Your task to perform on an android device: Open CNN.com Image 0: 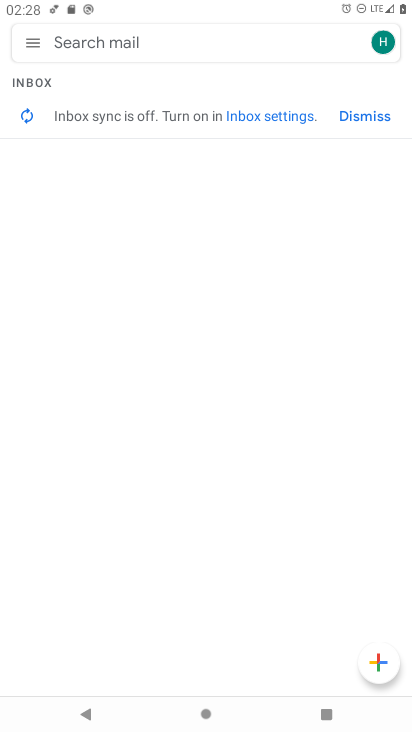
Step 0: press home button
Your task to perform on an android device: Open CNN.com Image 1: 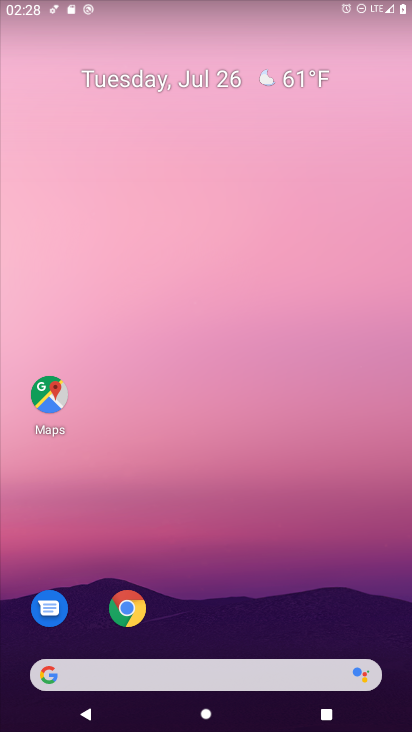
Step 1: click (129, 595)
Your task to perform on an android device: Open CNN.com Image 2: 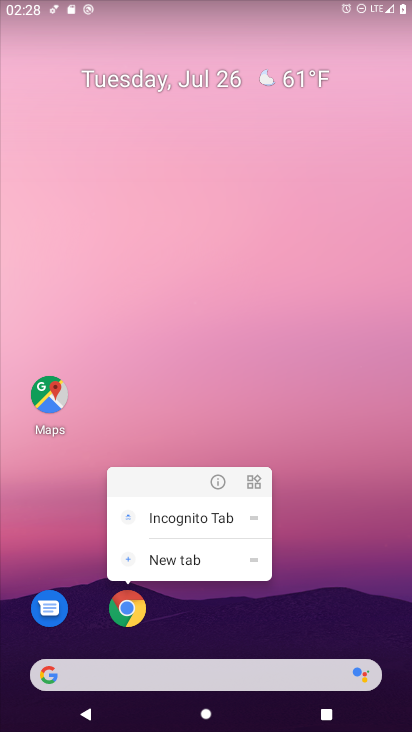
Step 2: click (132, 597)
Your task to perform on an android device: Open CNN.com Image 3: 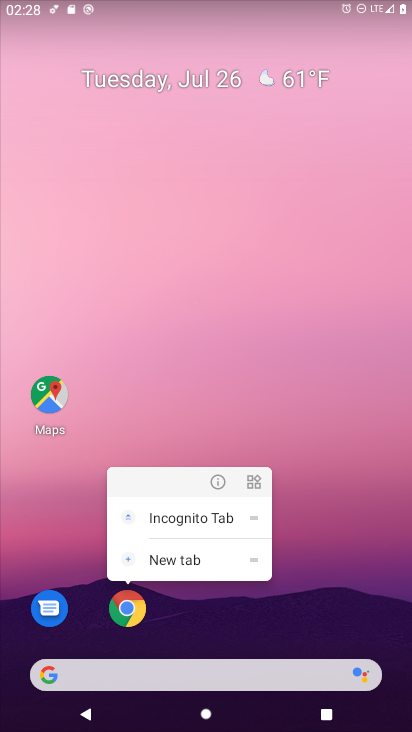
Step 3: click (132, 597)
Your task to perform on an android device: Open CNN.com Image 4: 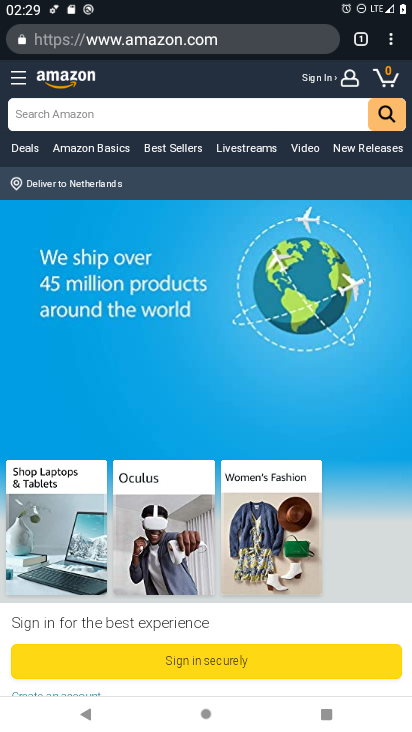
Step 4: click (363, 44)
Your task to perform on an android device: Open CNN.com Image 5: 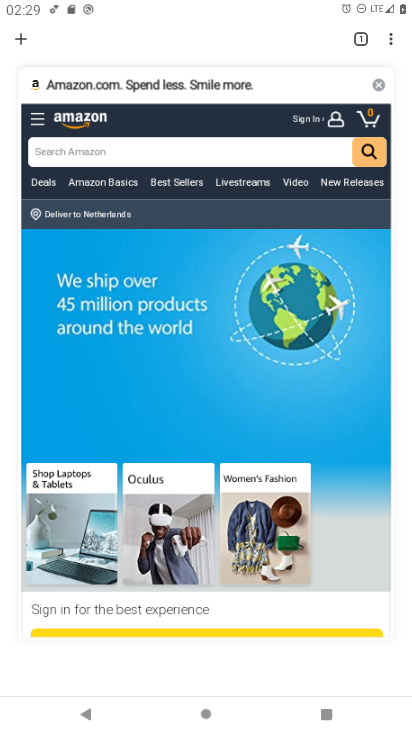
Step 5: click (14, 34)
Your task to perform on an android device: Open CNN.com Image 6: 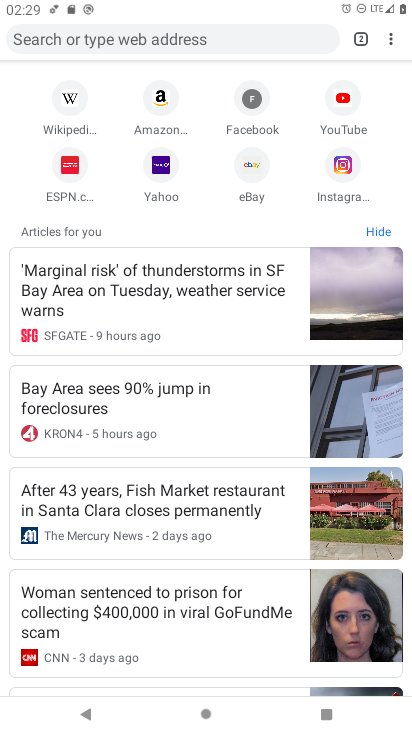
Step 6: click (191, 35)
Your task to perform on an android device: Open CNN.com Image 7: 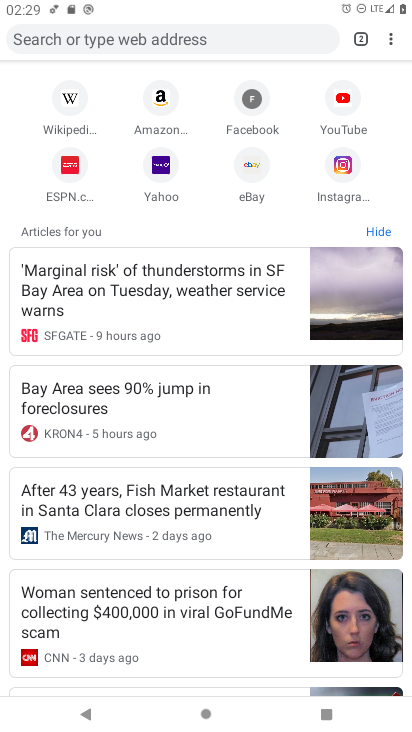
Step 7: click (192, 34)
Your task to perform on an android device: Open CNN.com Image 8: 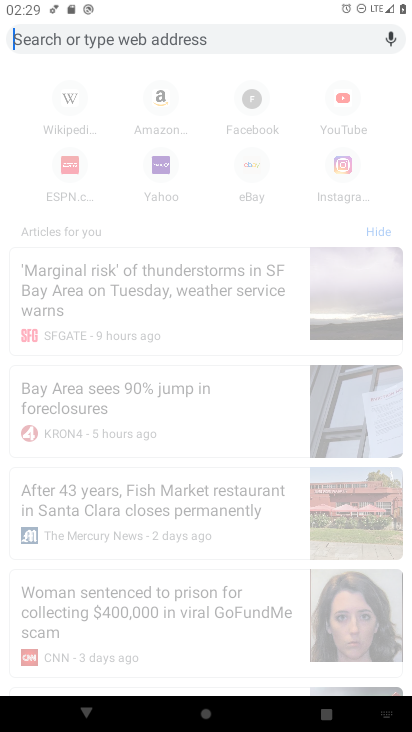
Step 8: type "CNN.com"
Your task to perform on an android device: Open CNN.com Image 9: 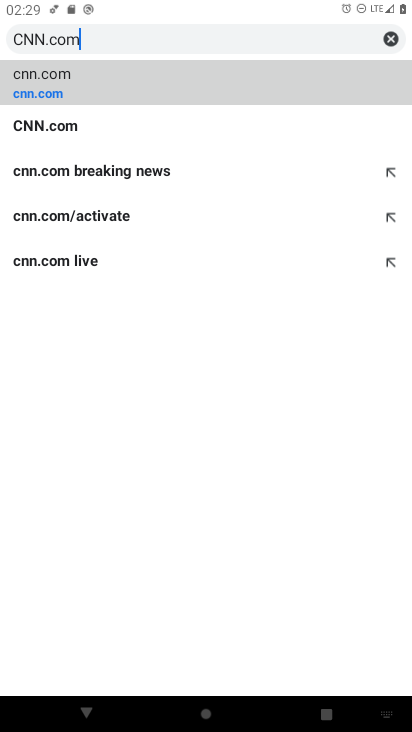
Step 9: type ""
Your task to perform on an android device: Open CNN.com Image 10: 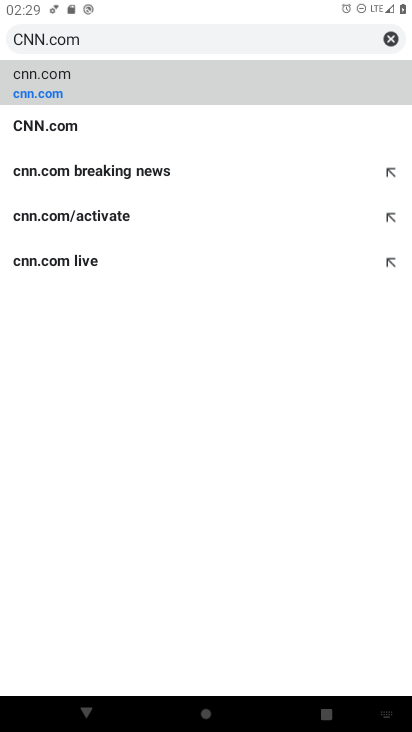
Step 10: click (135, 85)
Your task to perform on an android device: Open CNN.com Image 11: 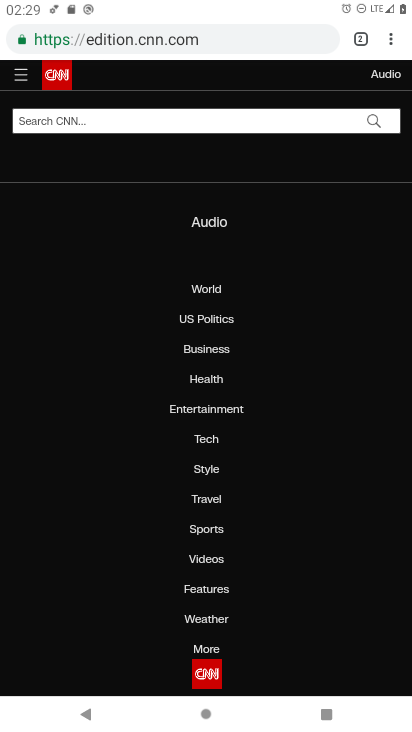
Step 11: task complete